Your task to perform on an android device: stop showing notifications on the lock screen Image 0: 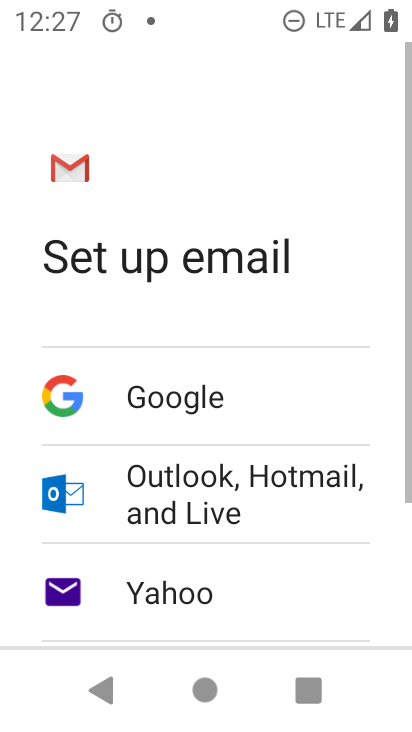
Step 0: press home button
Your task to perform on an android device: stop showing notifications on the lock screen Image 1: 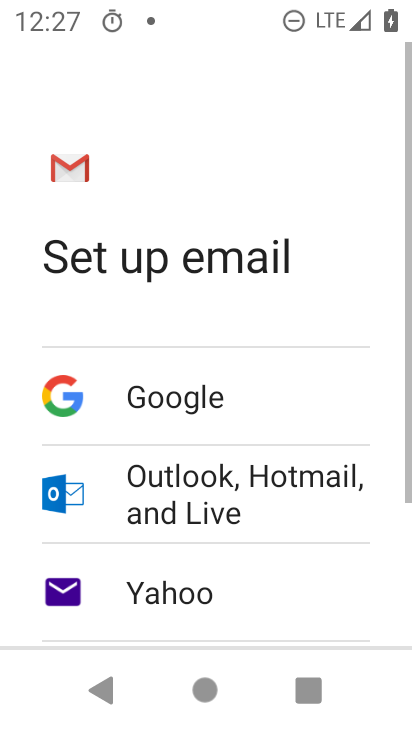
Step 1: drag from (224, 565) to (272, 43)
Your task to perform on an android device: stop showing notifications on the lock screen Image 2: 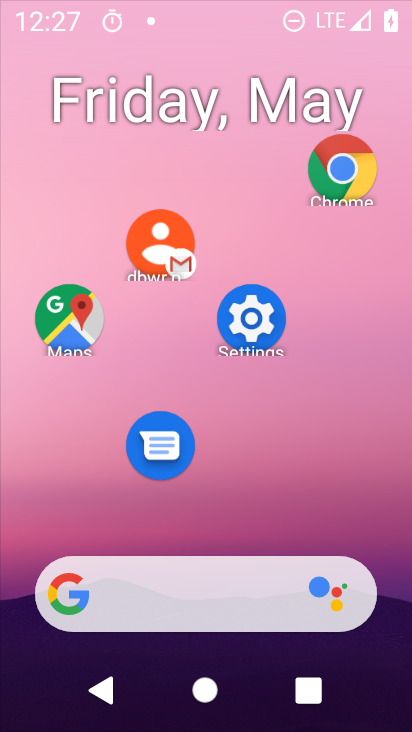
Step 2: drag from (220, 571) to (285, 33)
Your task to perform on an android device: stop showing notifications on the lock screen Image 3: 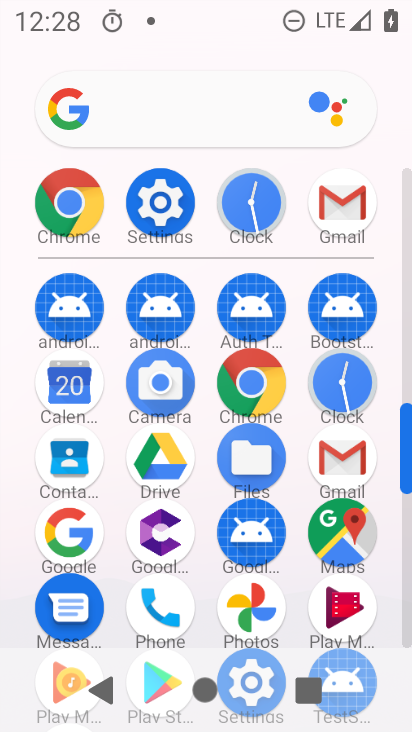
Step 3: click (170, 187)
Your task to perform on an android device: stop showing notifications on the lock screen Image 4: 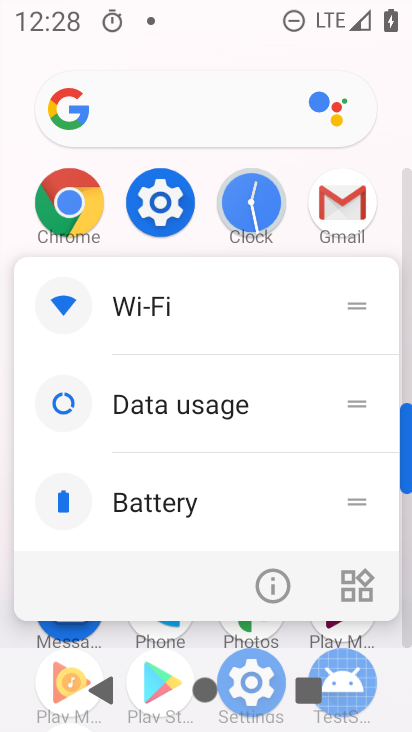
Step 4: click (287, 593)
Your task to perform on an android device: stop showing notifications on the lock screen Image 5: 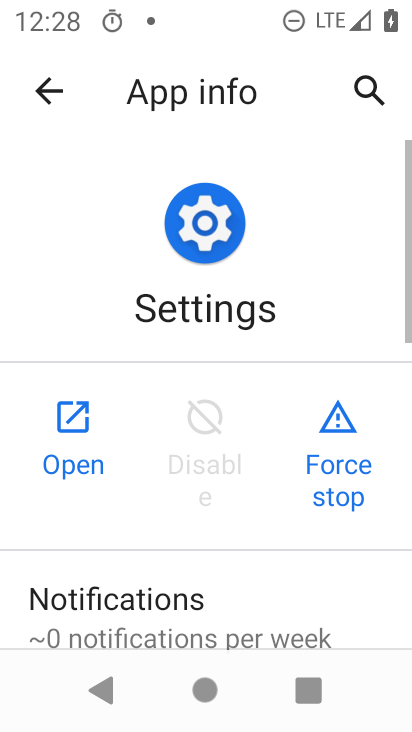
Step 5: click (112, 390)
Your task to perform on an android device: stop showing notifications on the lock screen Image 6: 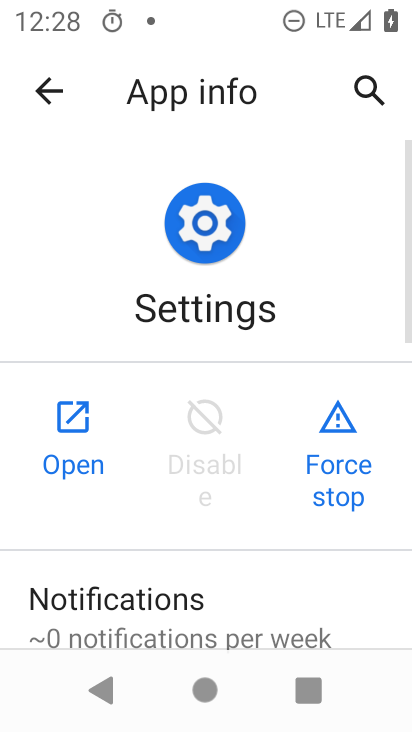
Step 6: click (112, 390)
Your task to perform on an android device: stop showing notifications on the lock screen Image 7: 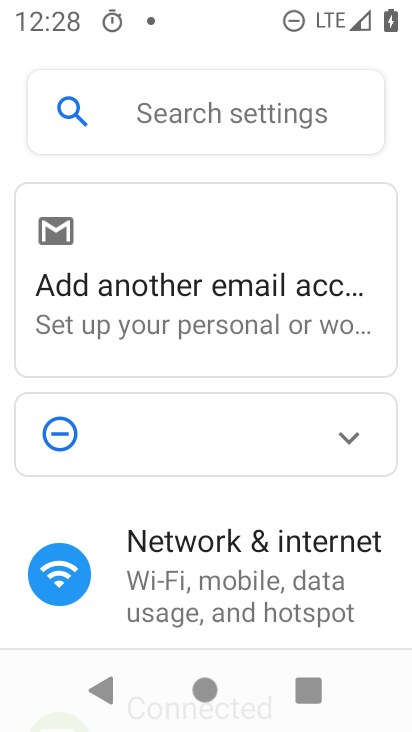
Step 7: drag from (242, 560) to (353, 121)
Your task to perform on an android device: stop showing notifications on the lock screen Image 8: 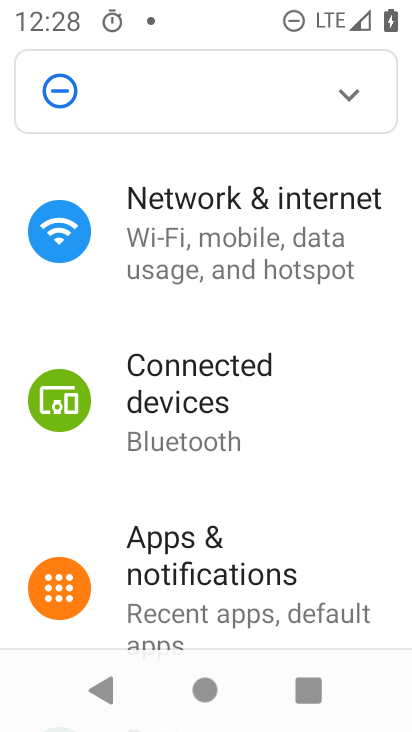
Step 8: drag from (258, 595) to (334, 39)
Your task to perform on an android device: stop showing notifications on the lock screen Image 9: 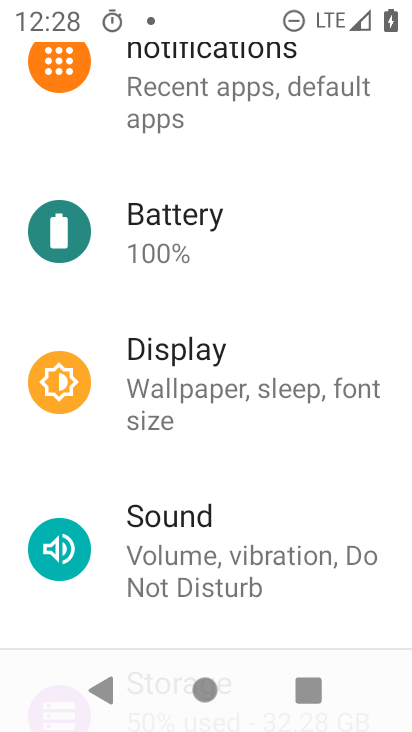
Step 9: drag from (255, 177) to (299, 537)
Your task to perform on an android device: stop showing notifications on the lock screen Image 10: 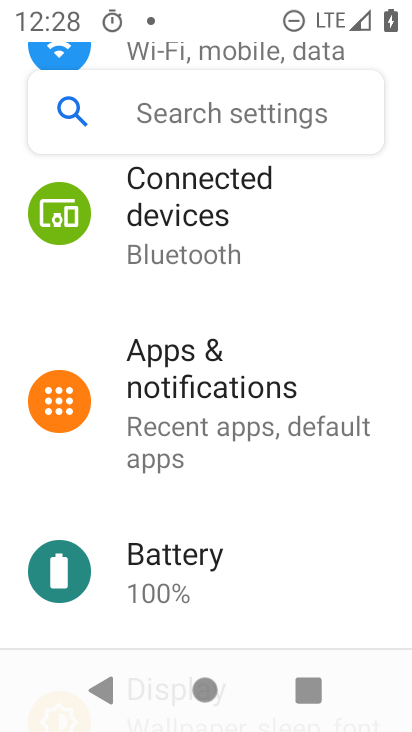
Step 10: click (158, 376)
Your task to perform on an android device: stop showing notifications on the lock screen Image 11: 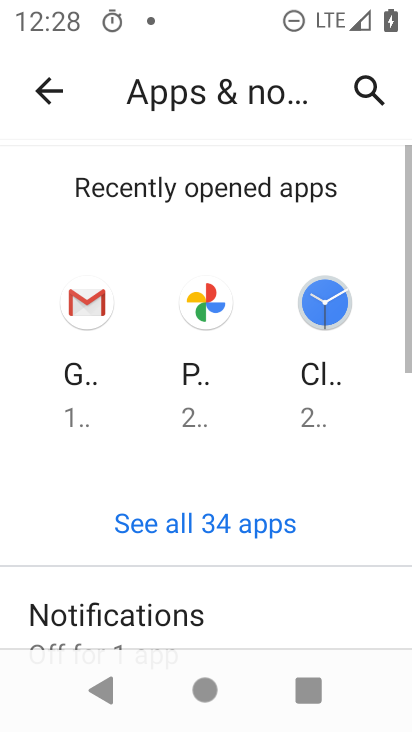
Step 11: drag from (229, 591) to (292, 206)
Your task to perform on an android device: stop showing notifications on the lock screen Image 12: 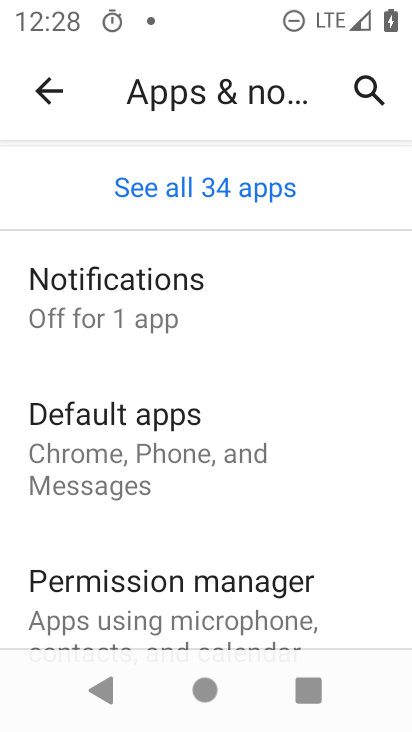
Step 12: drag from (217, 597) to (300, 655)
Your task to perform on an android device: stop showing notifications on the lock screen Image 13: 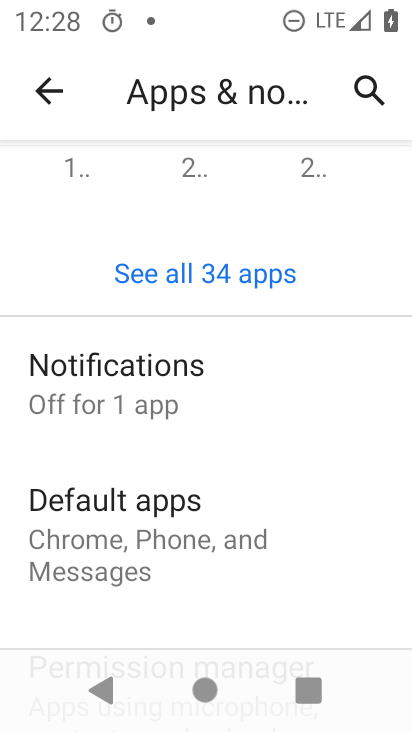
Step 13: click (206, 407)
Your task to perform on an android device: stop showing notifications on the lock screen Image 14: 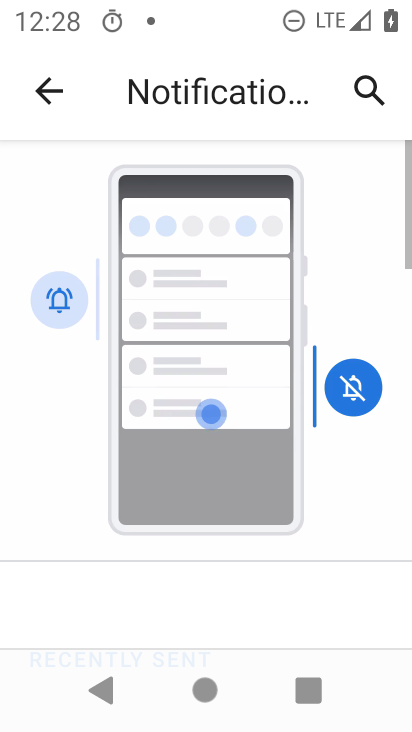
Step 14: drag from (253, 575) to (374, 163)
Your task to perform on an android device: stop showing notifications on the lock screen Image 15: 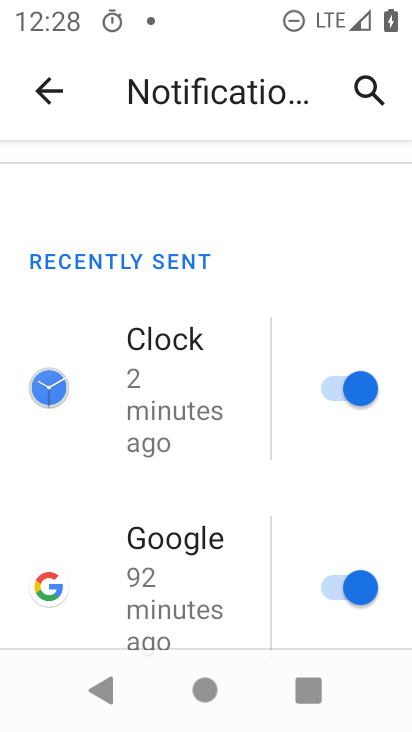
Step 15: drag from (268, 578) to (385, 53)
Your task to perform on an android device: stop showing notifications on the lock screen Image 16: 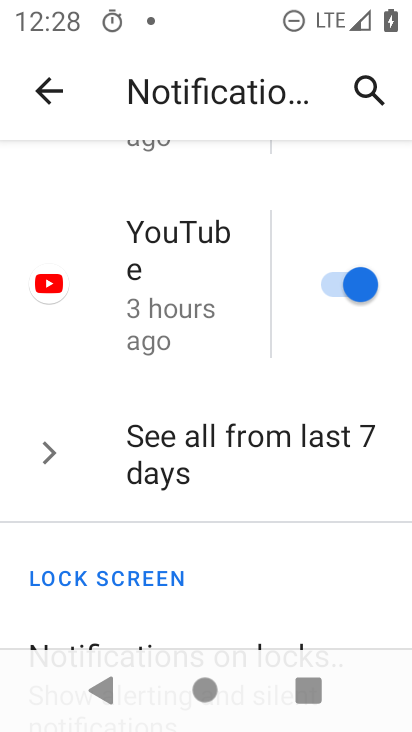
Step 16: drag from (269, 516) to (336, 208)
Your task to perform on an android device: stop showing notifications on the lock screen Image 17: 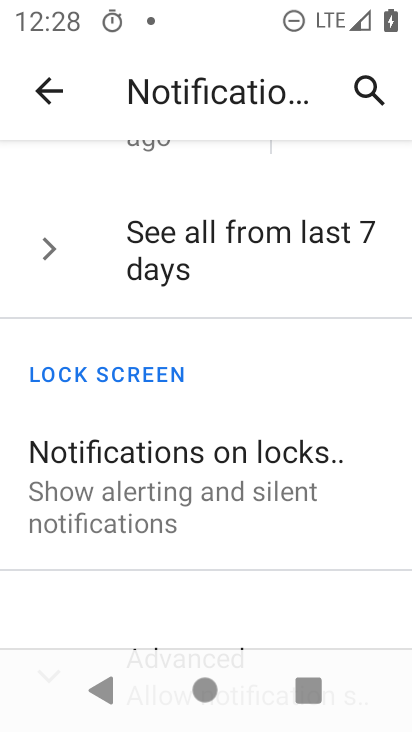
Step 17: click (187, 464)
Your task to perform on an android device: stop showing notifications on the lock screen Image 18: 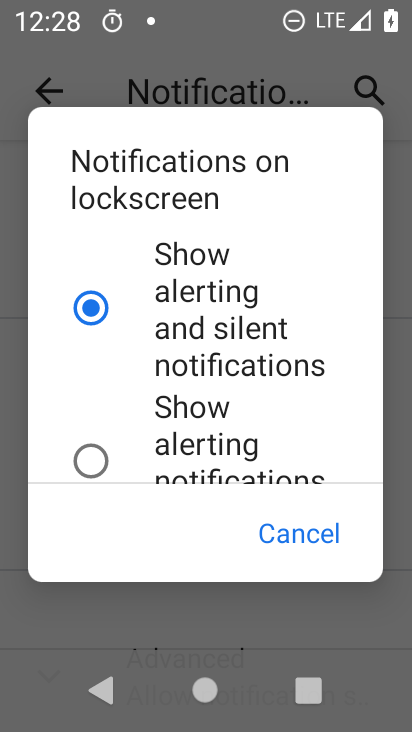
Step 18: drag from (165, 431) to (329, 55)
Your task to perform on an android device: stop showing notifications on the lock screen Image 19: 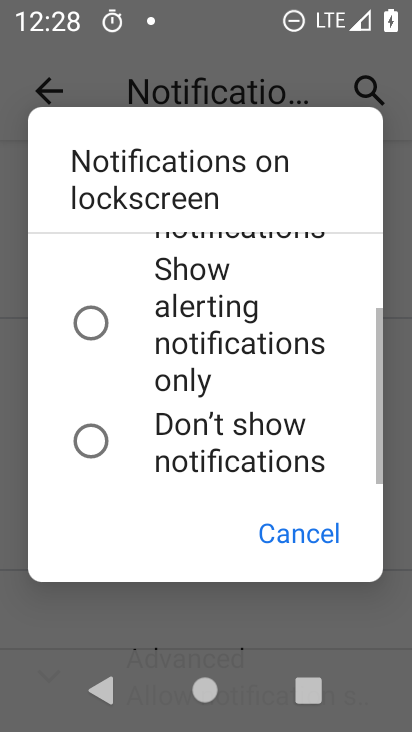
Step 19: click (139, 439)
Your task to perform on an android device: stop showing notifications on the lock screen Image 20: 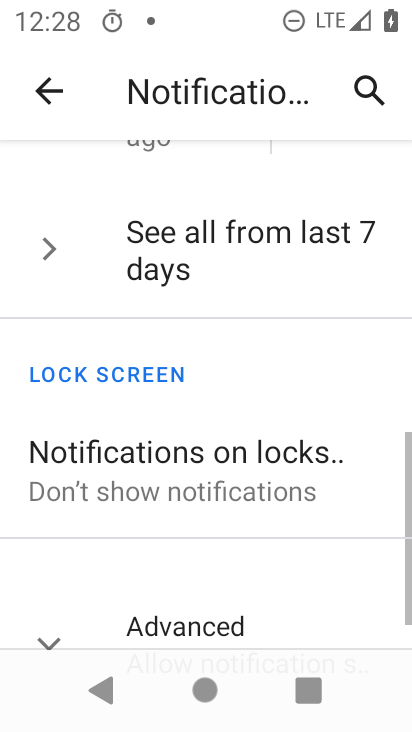
Step 20: task complete